Your task to perform on an android device: Open display settings Image 0: 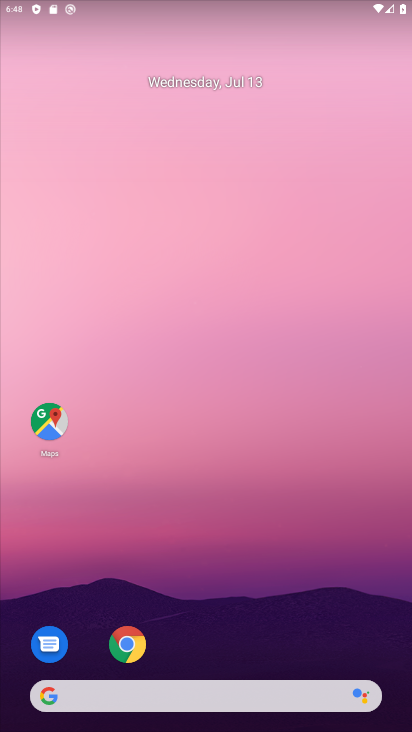
Step 0: drag from (264, 572) to (195, 101)
Your task to perform on an android device: Open display settings Image 1: 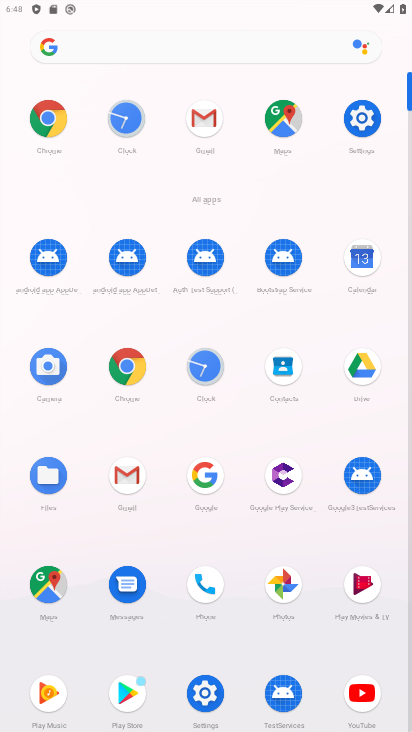
Step 1: click (363, 116)
Your task to perform on an android device: Open display settings Image 2: 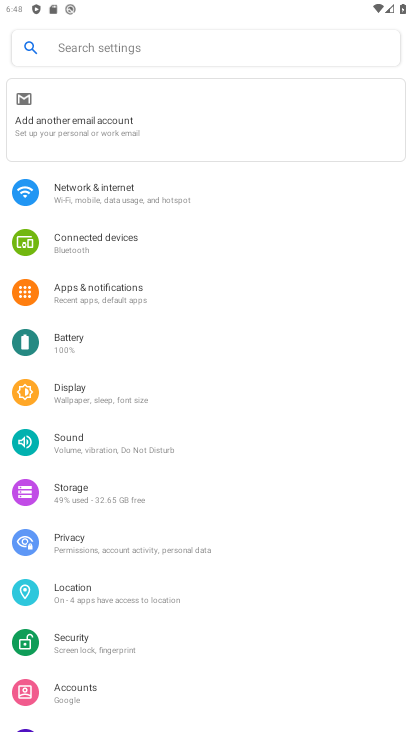
Step 2: click (75, 381)
Your task to perform on an android device: Open display settings Image 3: 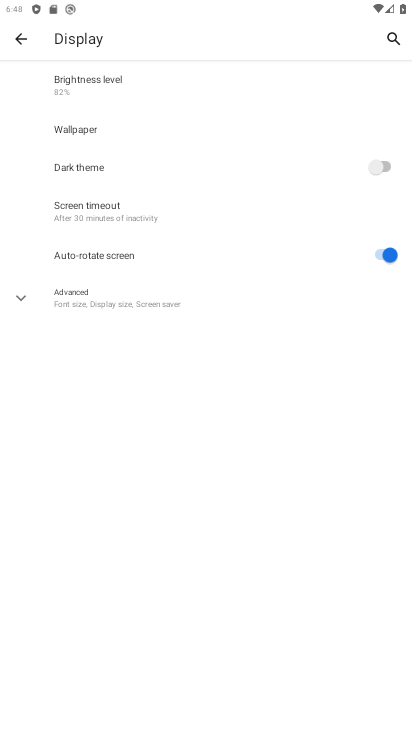
Step 3: task complete